Your task to perform on an android device: Search for Italian restaurants on Maps Image 0: 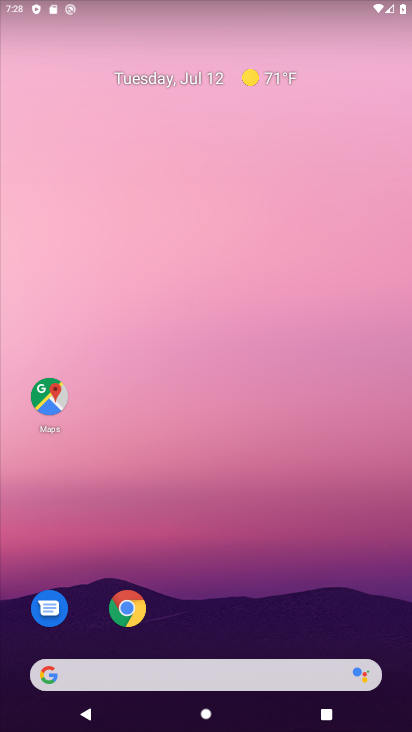
Step 0: click (47, 394)
Your task to perform on an android device: Search for Italian restaurants on Maps Image 1: 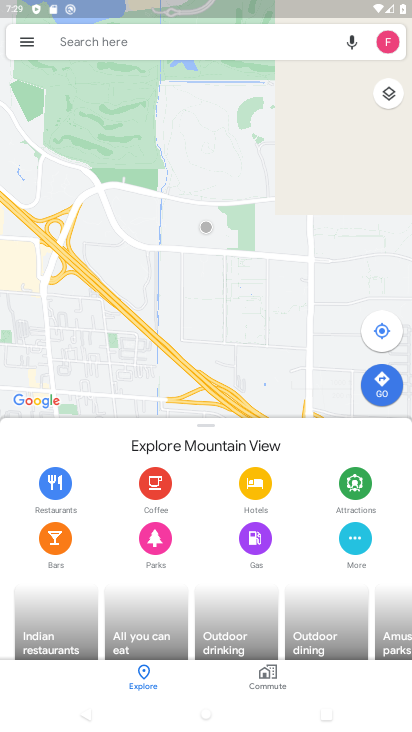
Step 1: click (185, 40)
Your task to perform on an android device: Search for Italian restaurants on Maps Image 2: 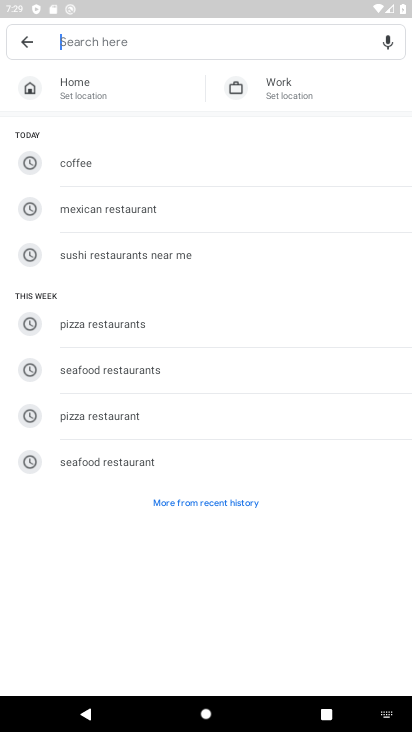
Step 2: click (94, 39)
Your task to perform on an android device: Search for Italian restaurants on Maps Image 3: 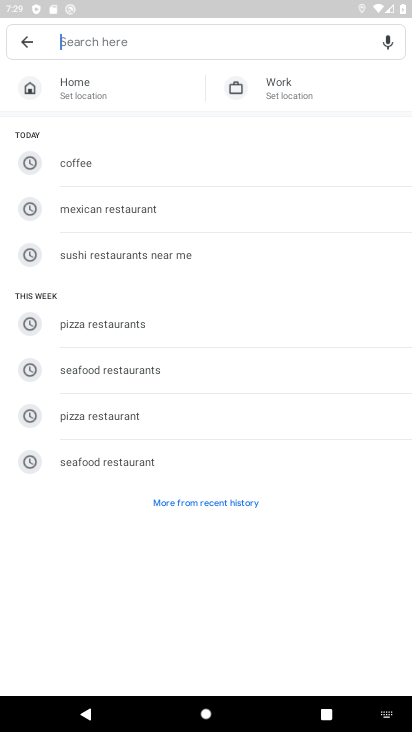
Step 3: type "italian restaurants"
Your task to perform on an android device: Search for Italian restaurants on Maps Image 4: 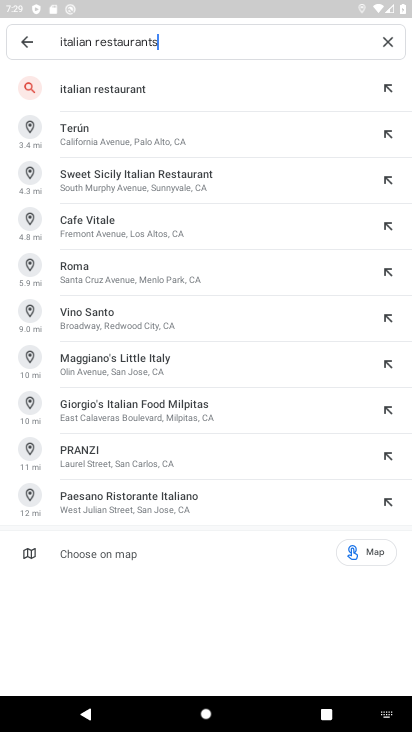
Step 4: click (87, 85)
Your task to perform on an android device: Search for Italian restaurants on Maps Image 5: 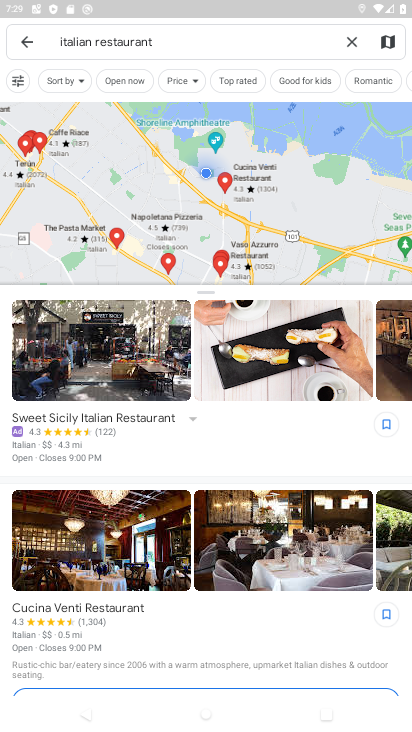
Step 5: task complete